Your task to perform on an android device: change alarm snooze length Image 0: 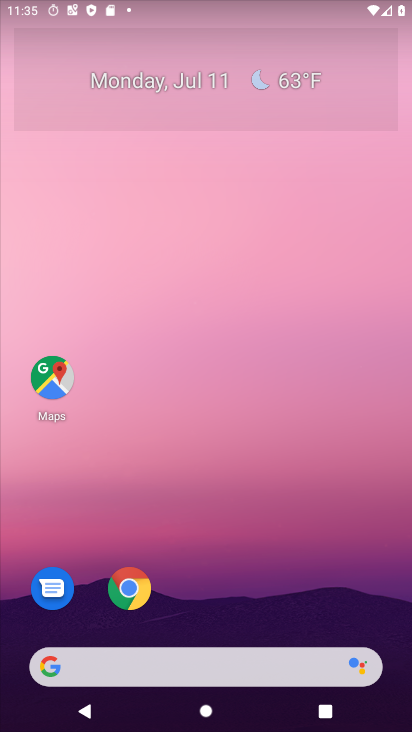
Step 0: drag from (226, 718) to (200, 128)
Your task to perform on an android device: change alarm snooze length Image 1: 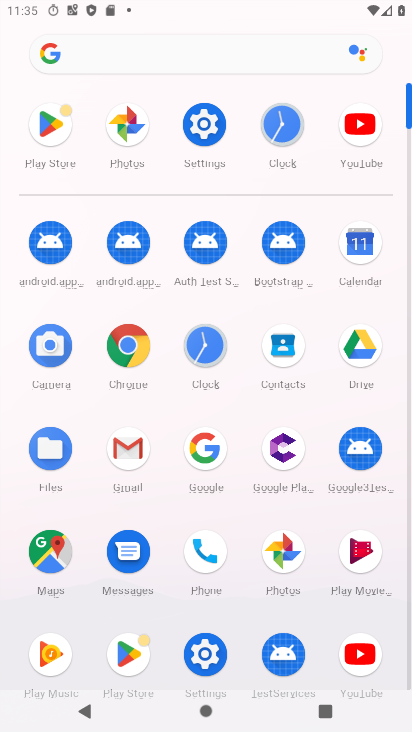
Step 1: click (213, 347)
Your task to perform on an android device: change alarm snooze length Image 2: 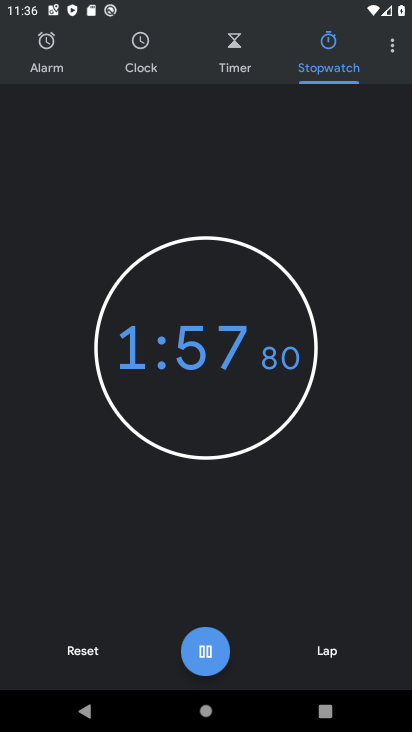
Step 2: click (392, 55)
Your task to perform on an android device: change alarm snooze length Image 3: 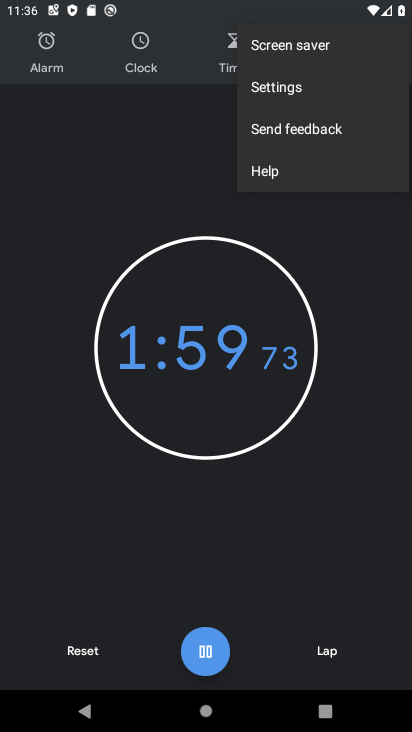
Step 3: click (290, 84)
Your task to perform on an android device: change alarm snooze length Image 4: 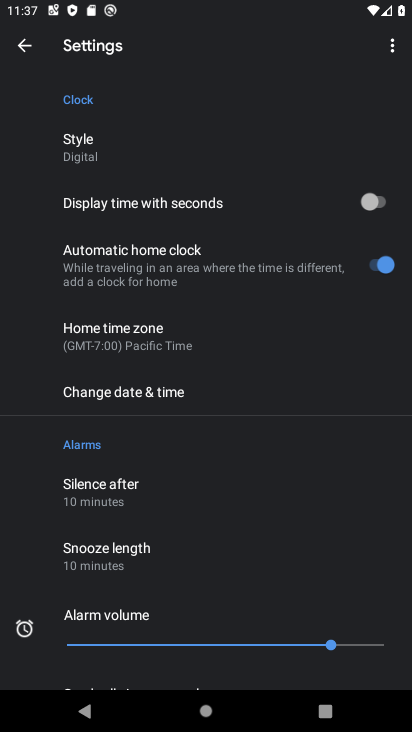
Step 4: click (115, 546)
Your task to perform on an android device: change alarm snooze length Image 5: 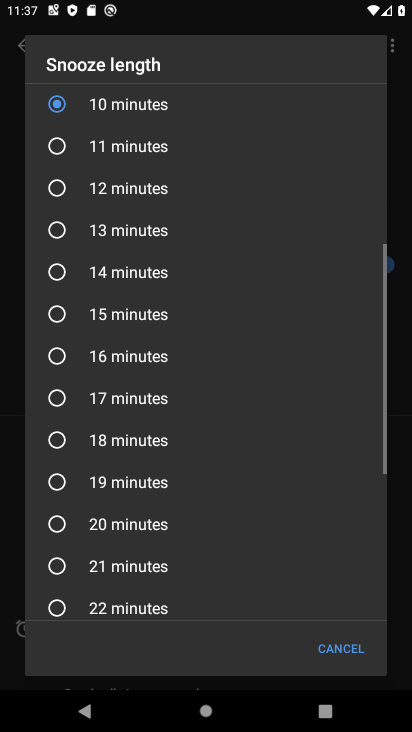
Step 5: click (62, 355)
Your task to perform on an android device: change alarm snooze length Image 6: 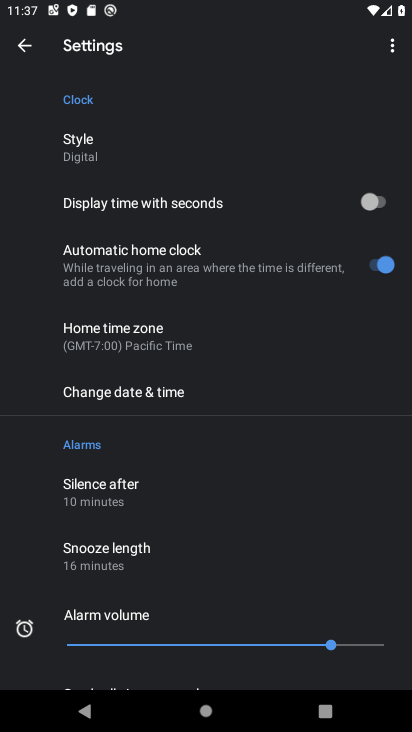
Step 6: task complete